Your task to perform on an android device: open the mobile data screen to see how much data has been used Image 0: 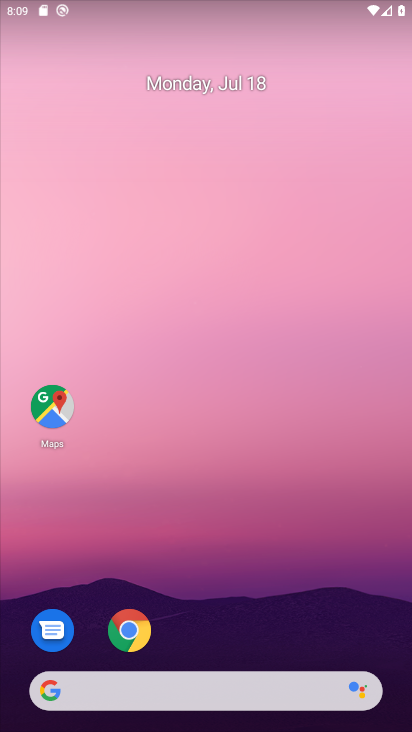
Step 0: drag from (228, 592) to (190, 110)
Your task to perform on an android device: open the mobile data screen to see how much data has been used Image 1: 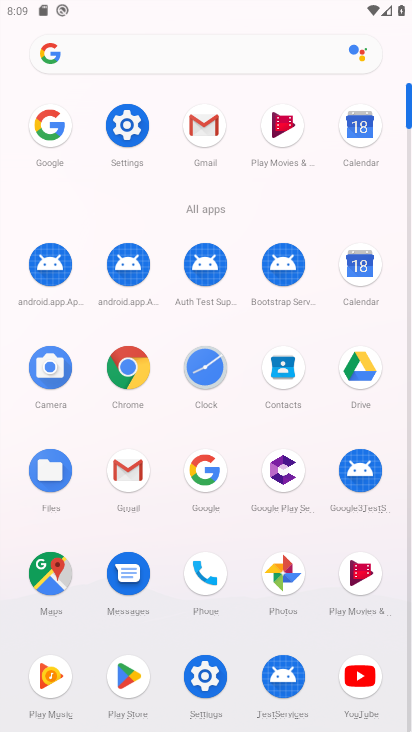
Step 1: click (126, 119)
Your task to perform on an android device: open the mobile data screen to see how much data has been used Image 2: 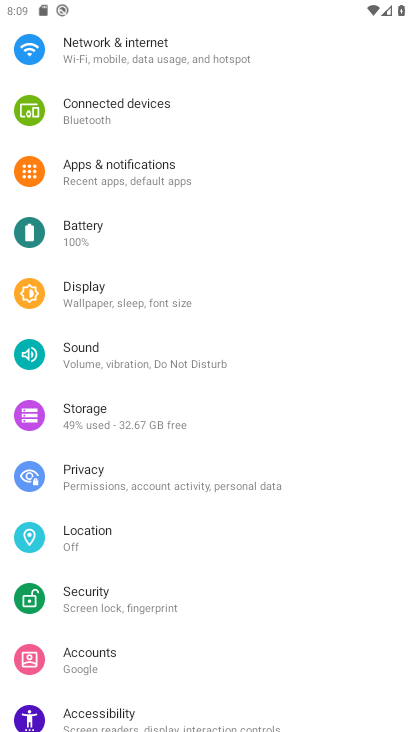
Step 2: click (196, 65)
Your task to perform on an android device: open the mobile data screen to see how much data has been used Image 3: 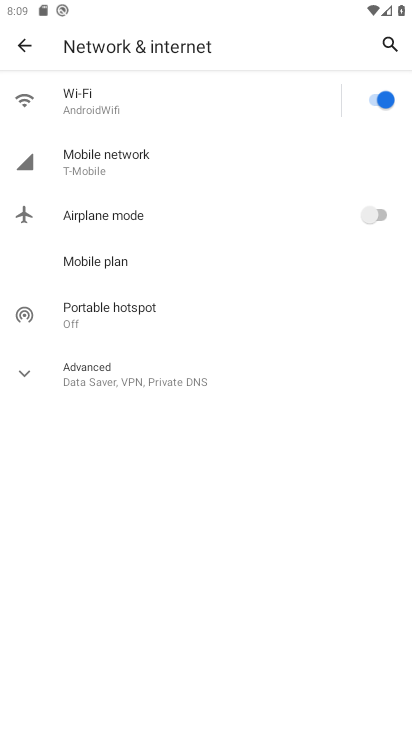
Step 3: click (146, 160)
Your task to perform on an android device: open the mobile data screen to see how much data has been used Image 4: 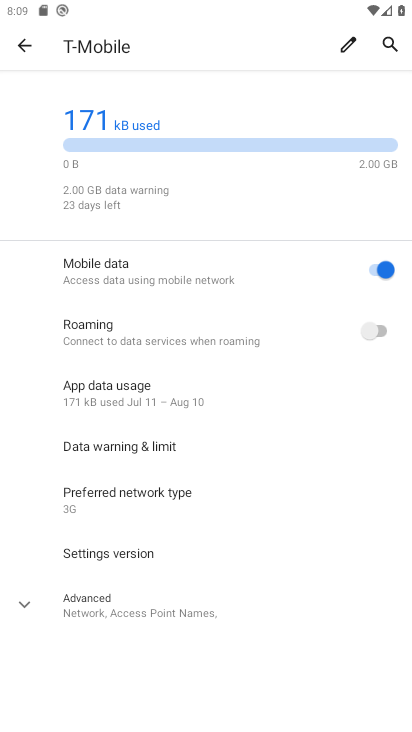
Step 4: click (174, 390)
Your task to perform on an android device: open the mobile data screen to see how much data has been used Image 5: 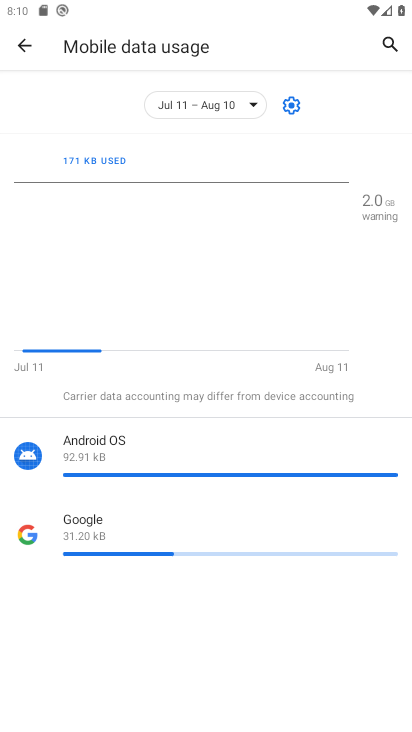
Step 5: task complete